Your task to perform on an android device: Search for "usb-c to usb-b" on ebay, select the first entry, add it to the cart, then select checkout. Image 0: 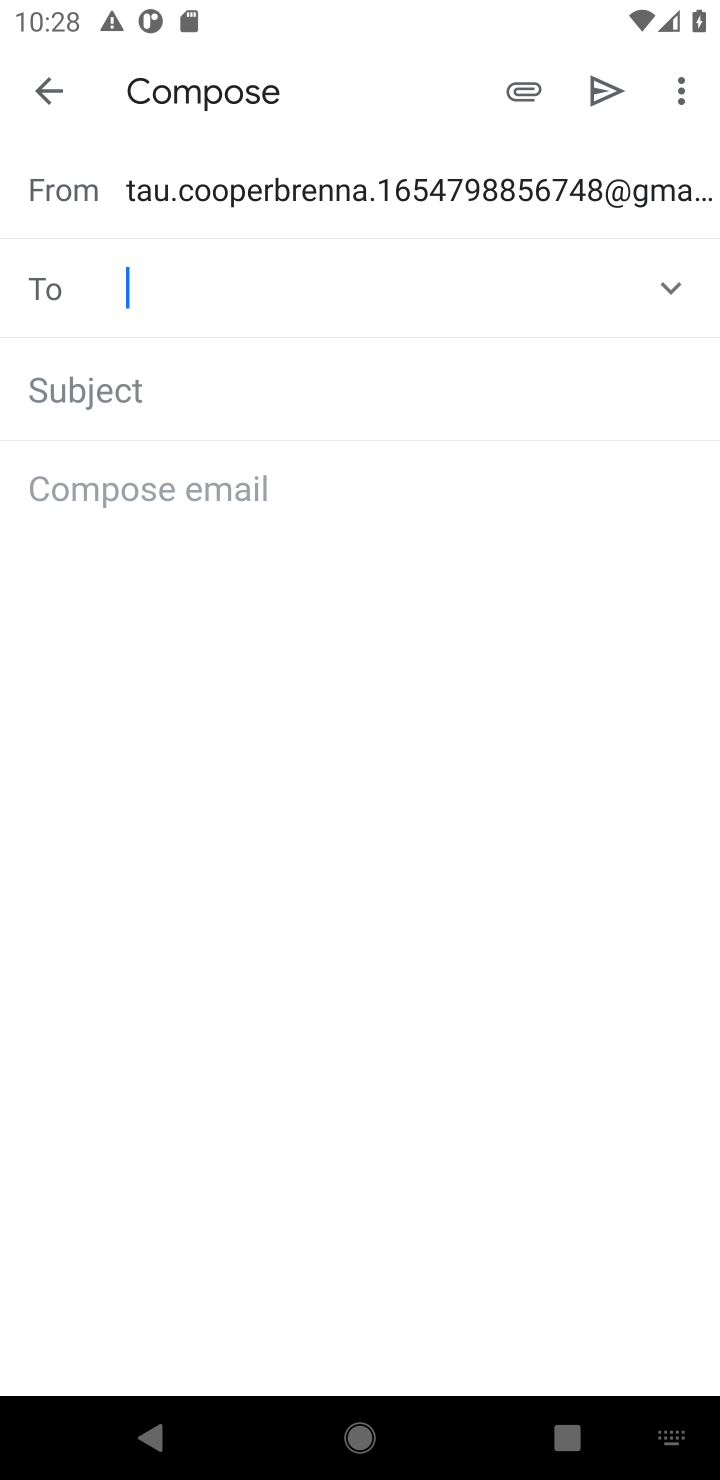
Step 0: press home button
Your task to perform on an android device: Search for "usb-c to usb-b" on ebay, select the first entry, add it to the cart, then select checkout. Image 1: 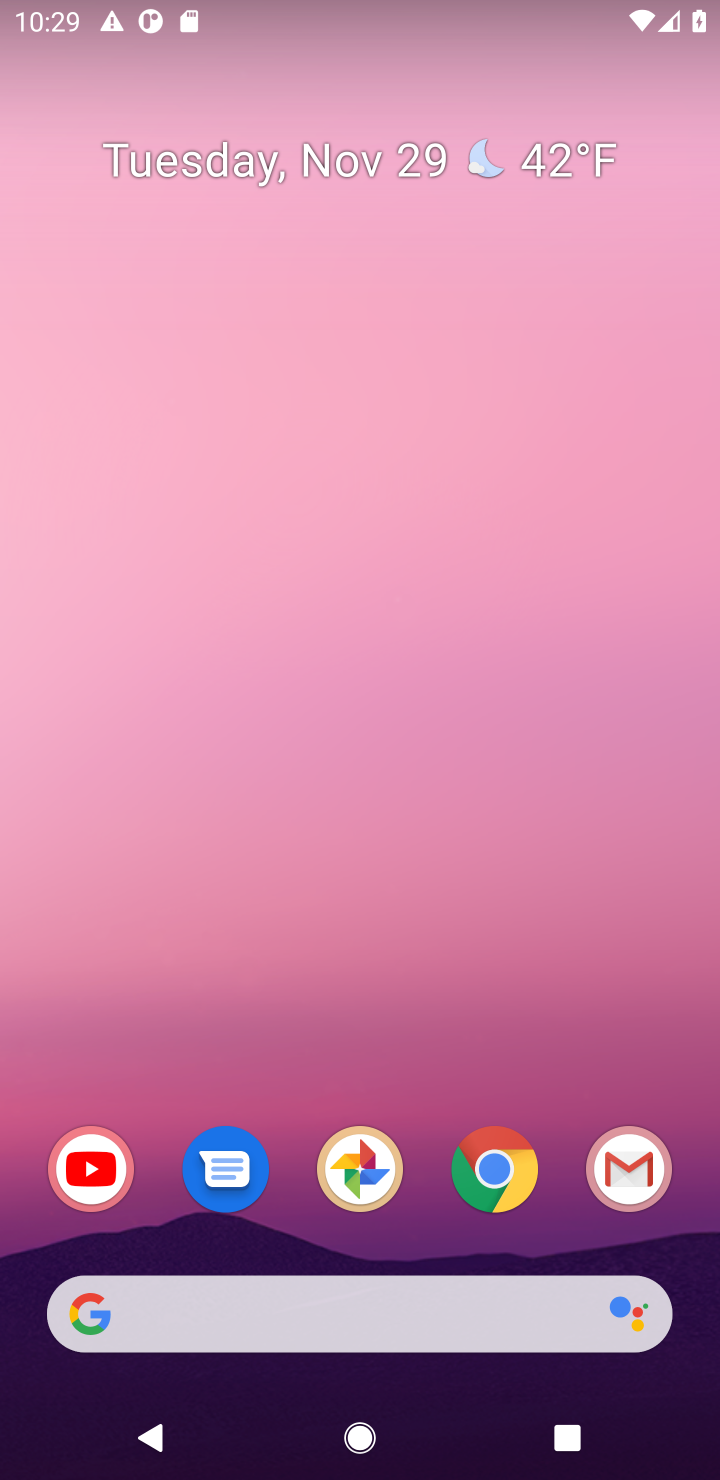
Step 1: click (413, 1303)
Your task to perform on an android device: Search for "usb-c to usb-b" on ebay, select the first entry, add it to the cart, then select checkout. Image 2: 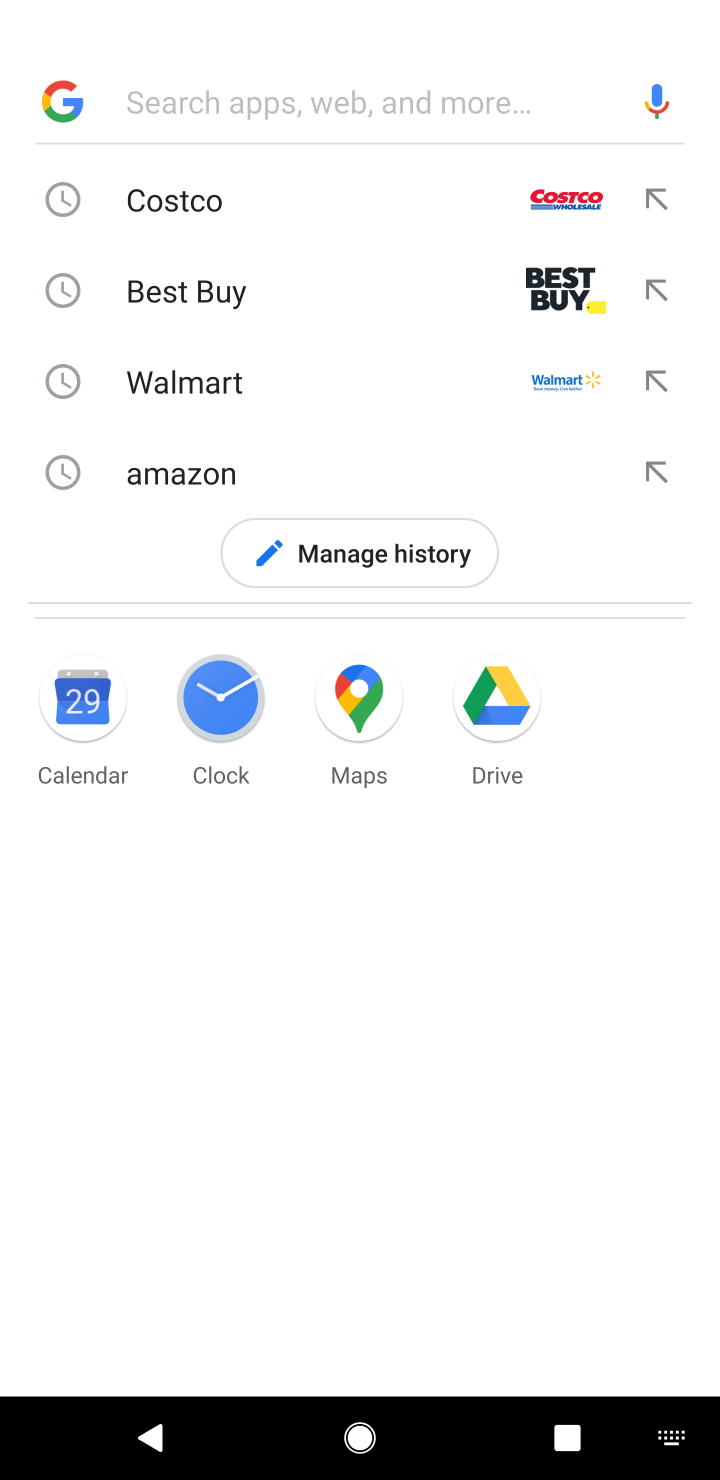
Step 2: type "eb"
Your task to perform on an android device: Search for "usb-c to usb-b" on ebay, select the first entry, add it to the cart, then select checkout. Image 3: 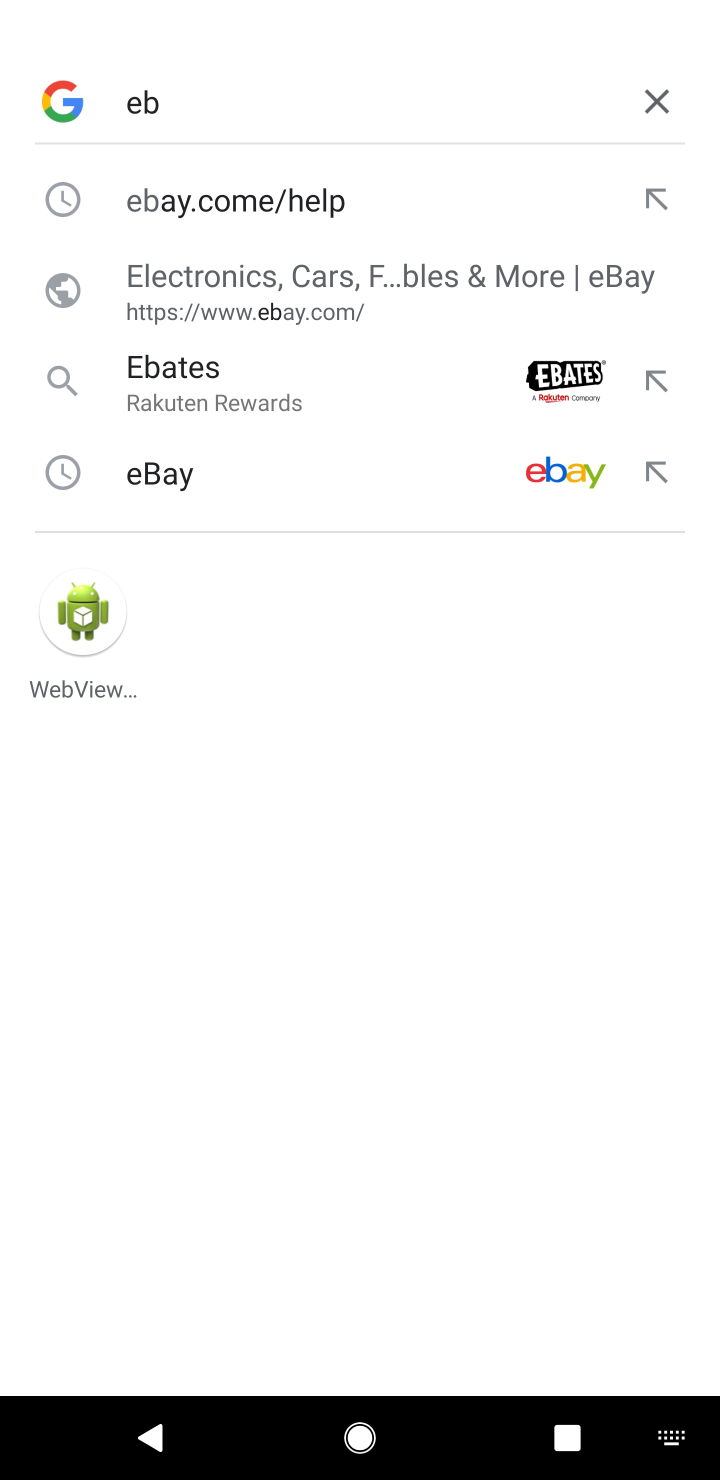
Step 3: click (313, 275)
Your task to perform on an android device: Search for "usb-c to usb-b" on ebay, select the first entry, add it to the cart, then select checkout. Image 4: 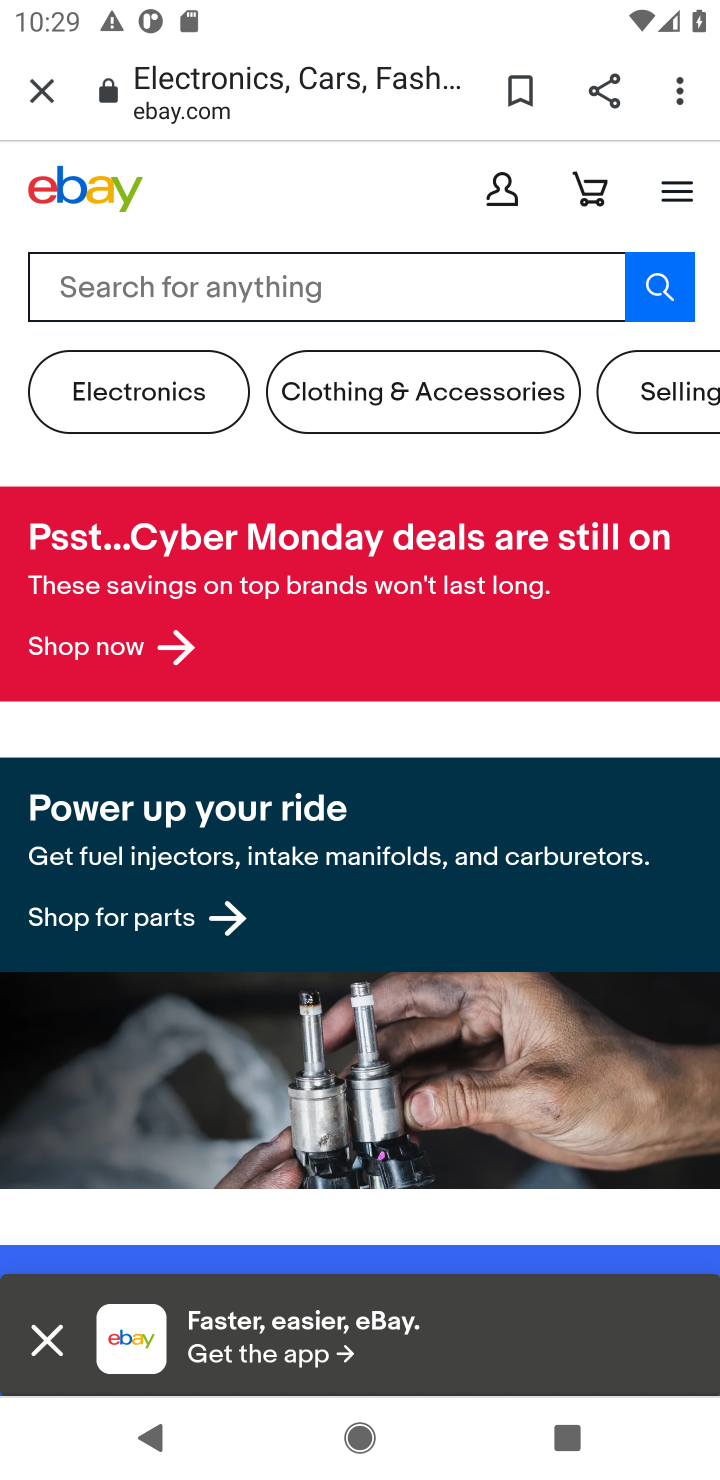
Step 4: click (328, 264)
Your task to perform on an android device: Search for "usb-c to usb-b" on ebay, select the first entry, add it to the cart, then select checkout. Image 5: 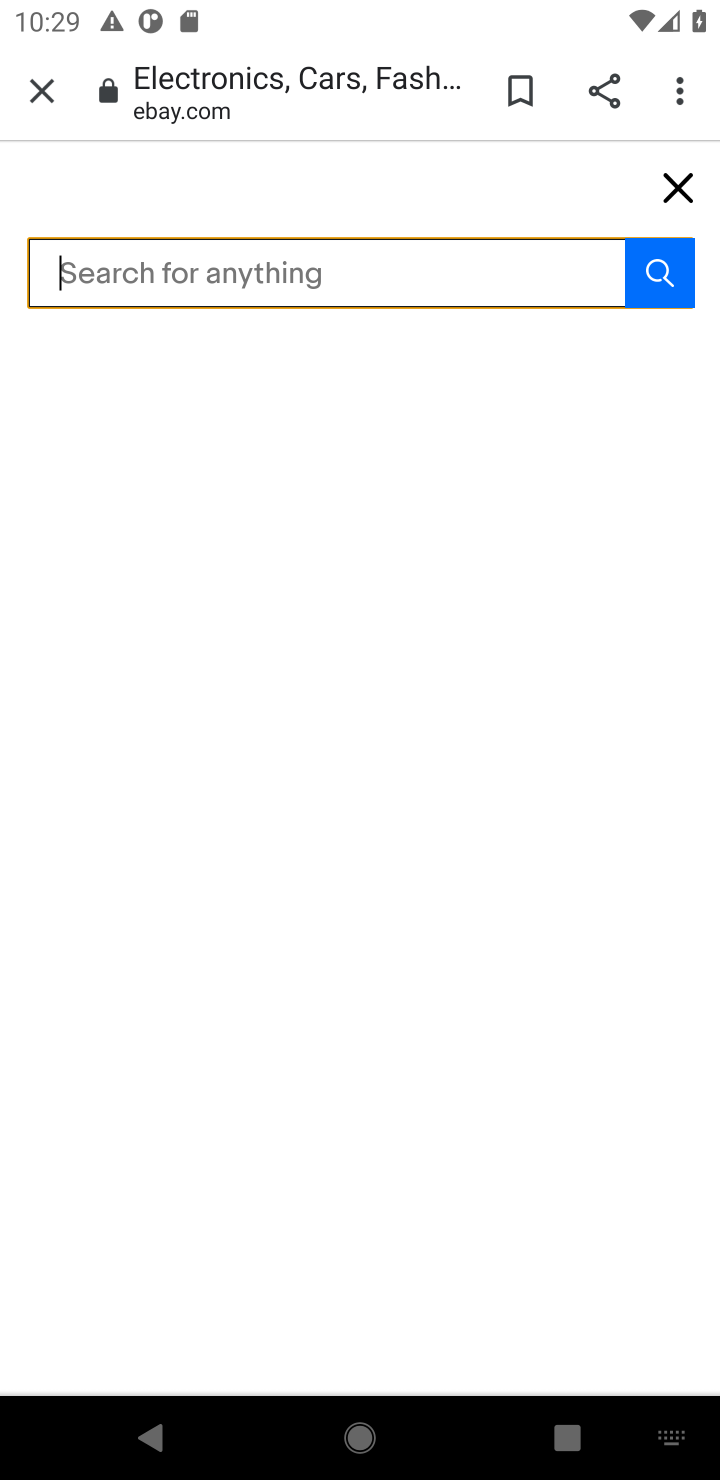
Step 5: type "usb-c to usb-b"
Your task to perform on an android device: Search for "usb-c to usb-b" on ebay, select the first entry, add it to the cart, then select checkout. Image 6: 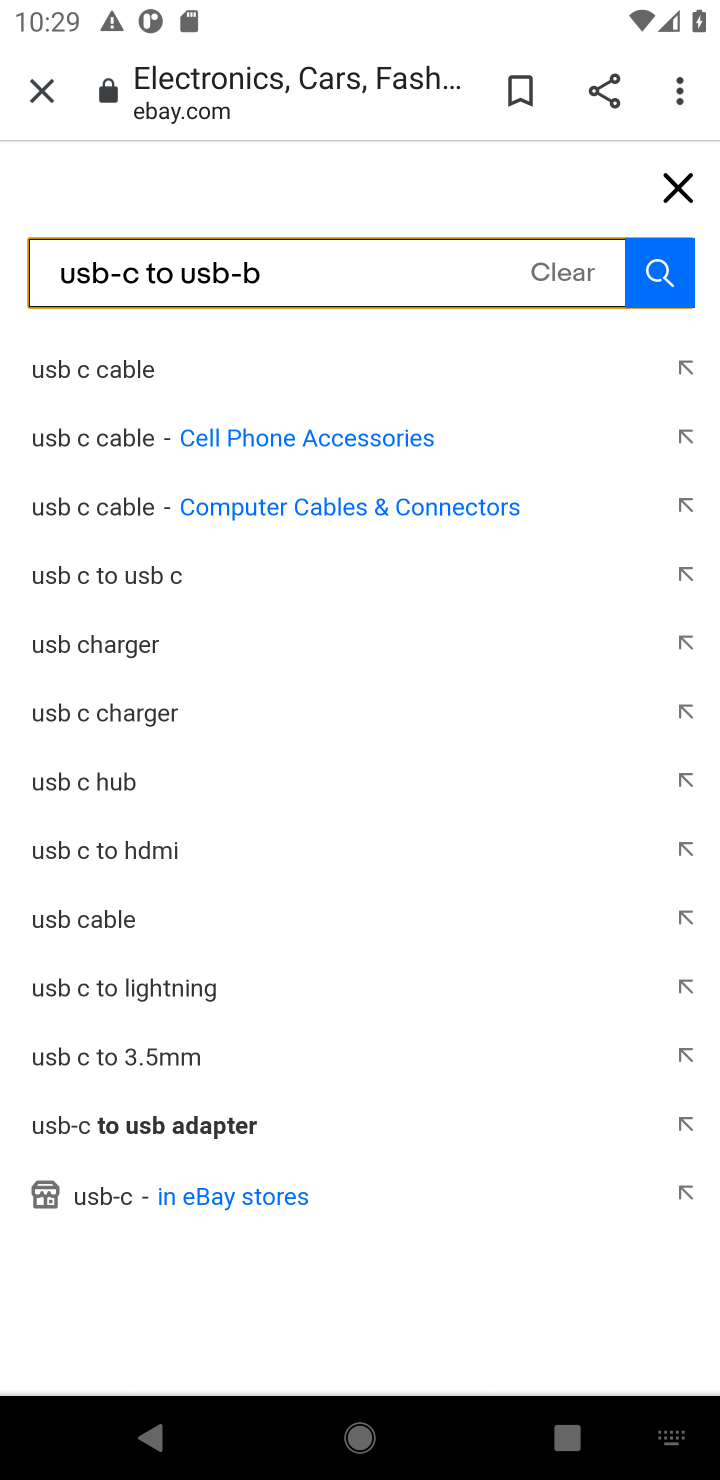
Step 6: click (644, 281)
Your task to perform on an android device: Search for "usb-c to usb-b" on ebay, select the first entry, add it to the cart, then select checkout. Image 7: 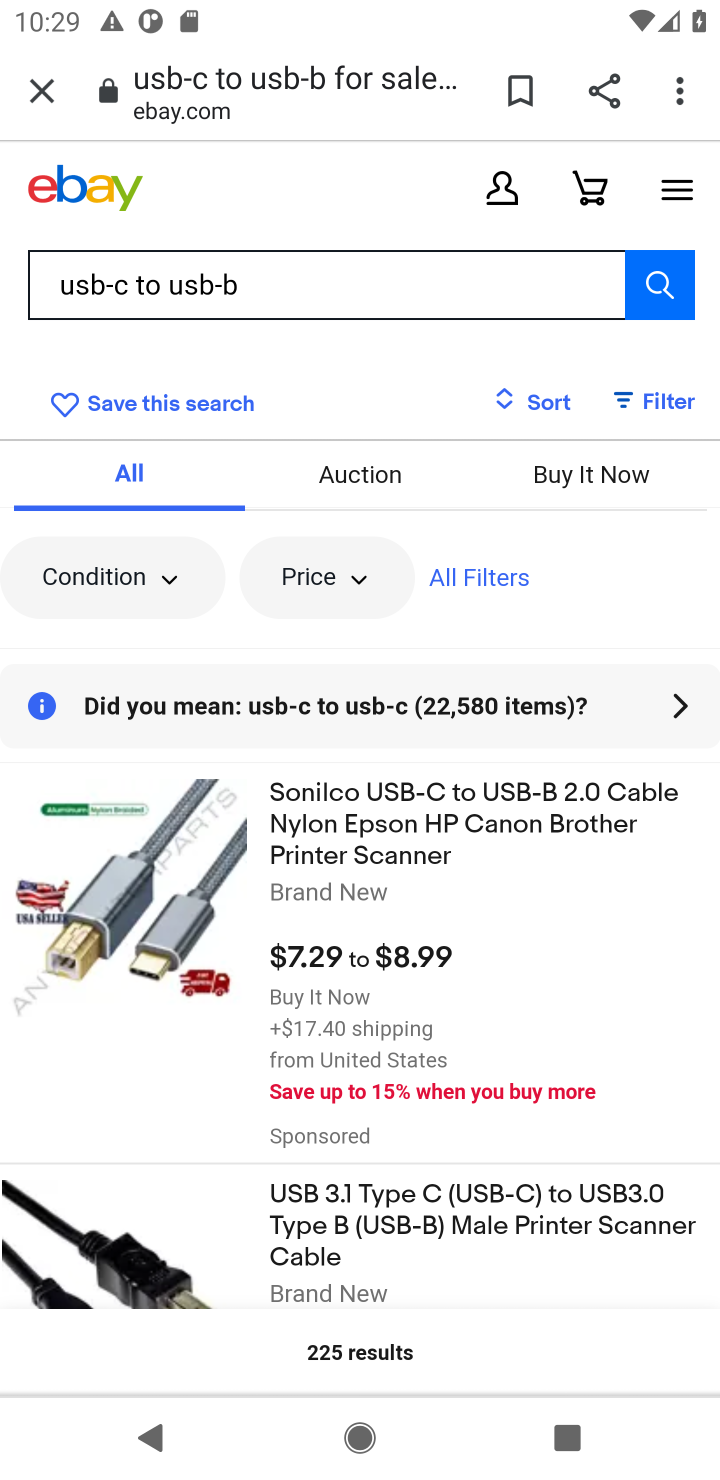
Step 7: click (513, 831)
Your task to perform on an android device: Search for "usb-c to usb-b" on ebay, select the first entry, add it to the cart, then select checkout. Image 8: 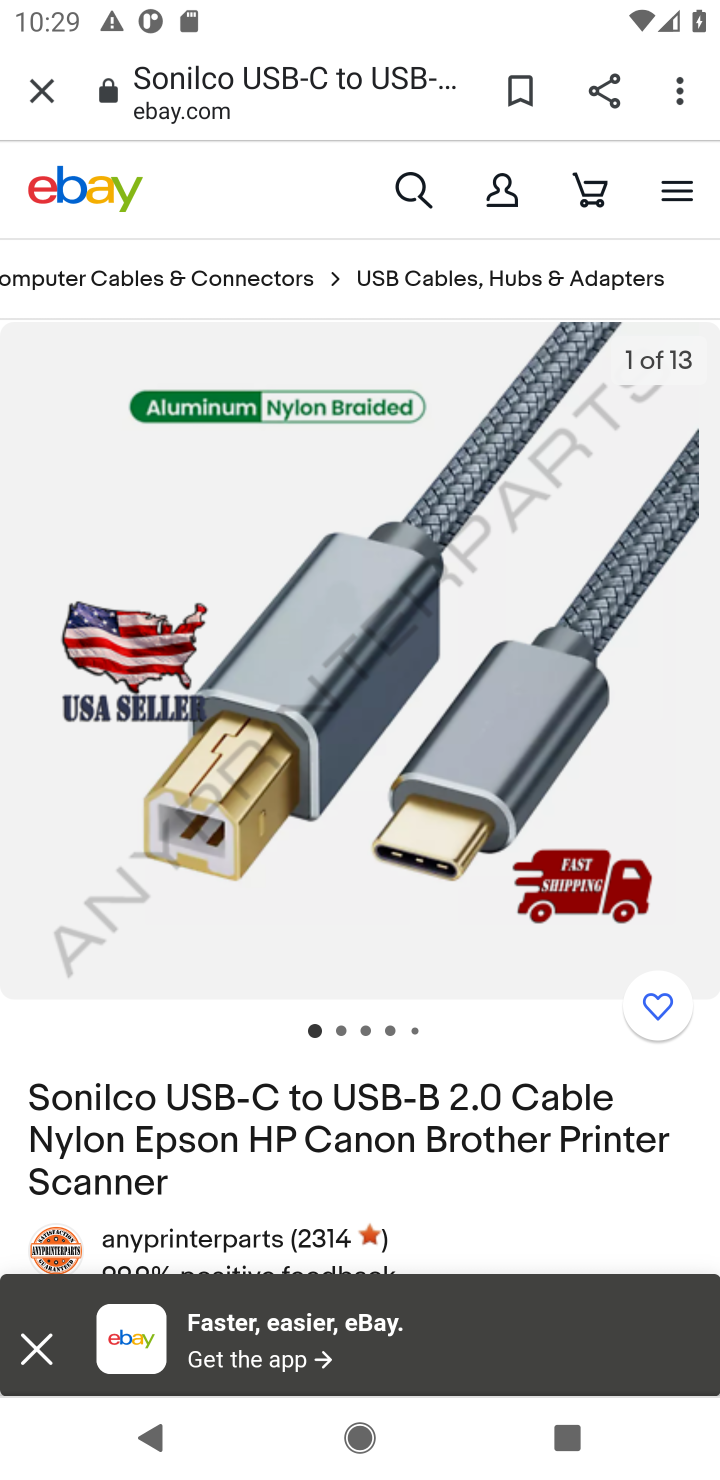
Step 8: drag from (456, 1165) to (320, 240)
Your task to perform on an android device: Search for "usb-c to usb-b" on ebay, select the first entry, add it to the cart, then select checkout. Image 9: 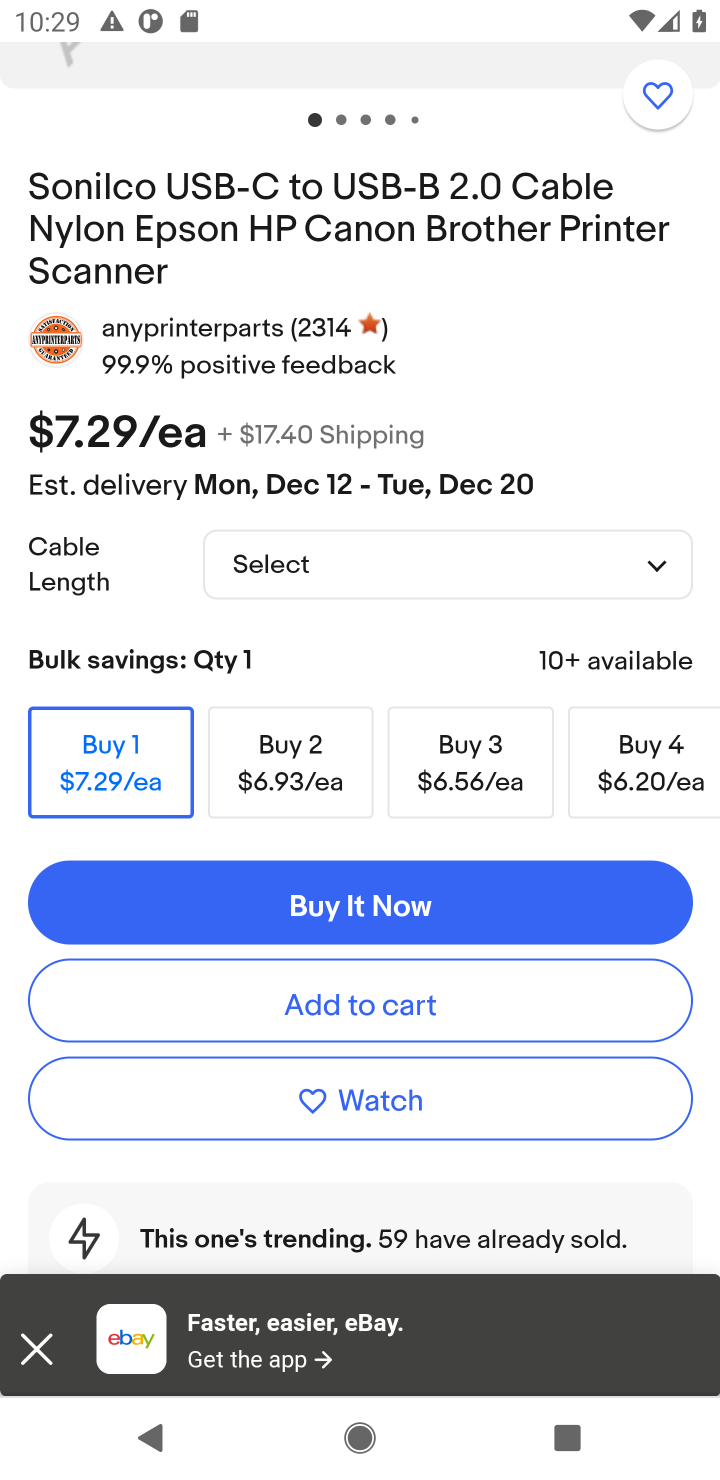
Step 9: click (391, 1020)
Your task to perform on an android device: Search for "usb-c to usb-b" on ebay, select the first entry, add it to the cart, then select checkout. Image 10: 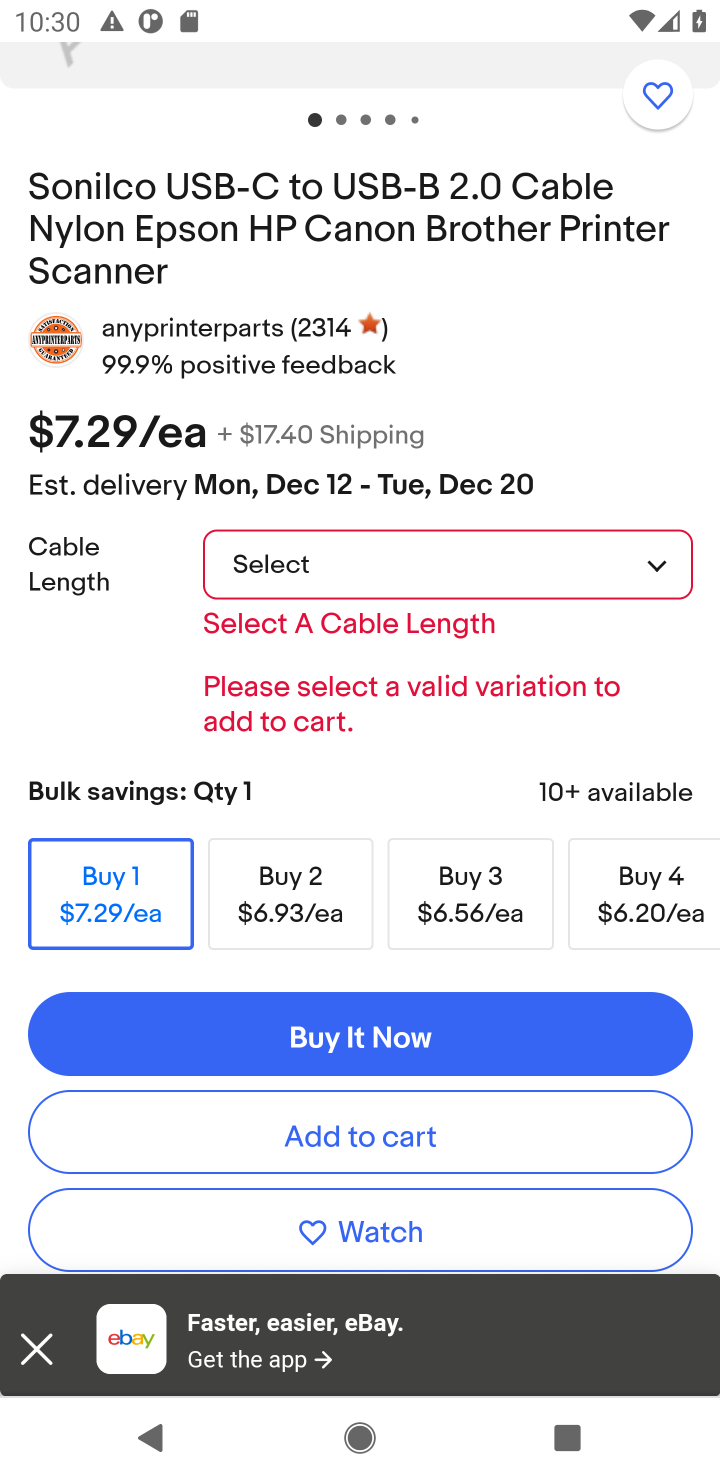
Step 10: task complete